Your task to perform on an android device: turn off javascript in the chrome app Image 0: 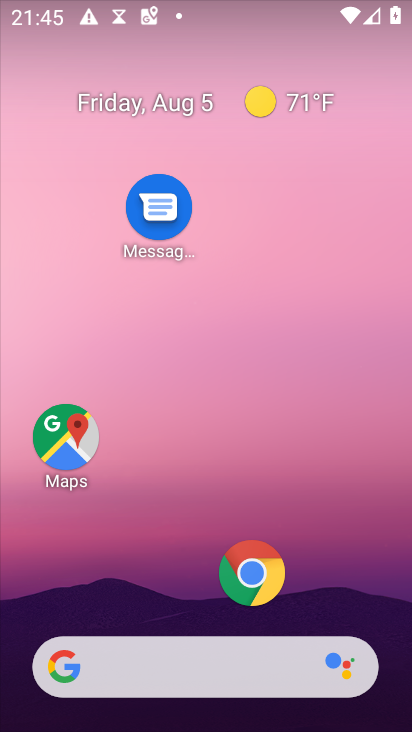
Step 0: click (244, 571)
Your task to perform on an android device: turn off javascript in the chrome app Image 1: 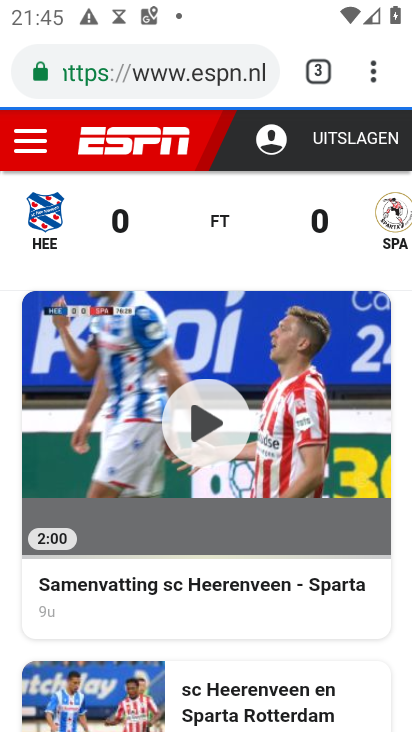
Step 1: click (376, 80)
Your task to perform on an android device: turn off javascript in the chrome app Image 2: 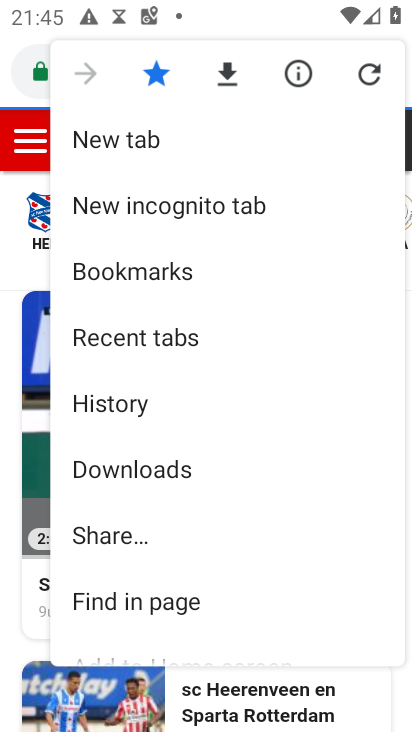
Step 2: drag from (161, 541) to (166, 275)
Your task to perform on an android device: turn off javascript in the chrome app Image 3: 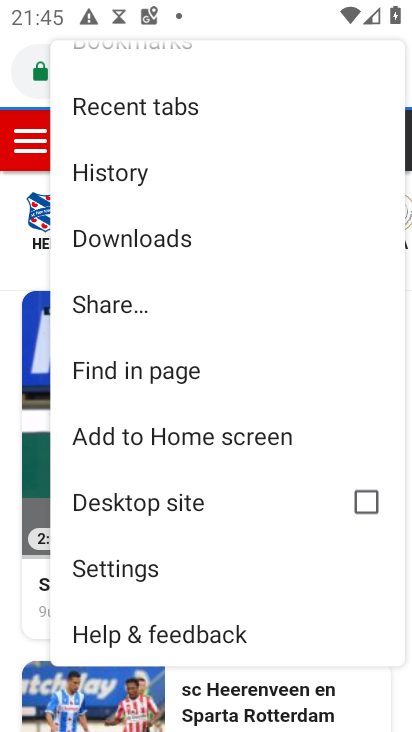
Step 3: click (164, 568)
Your task to perform on an android device: turn off javascript in the chrome app Image 4: 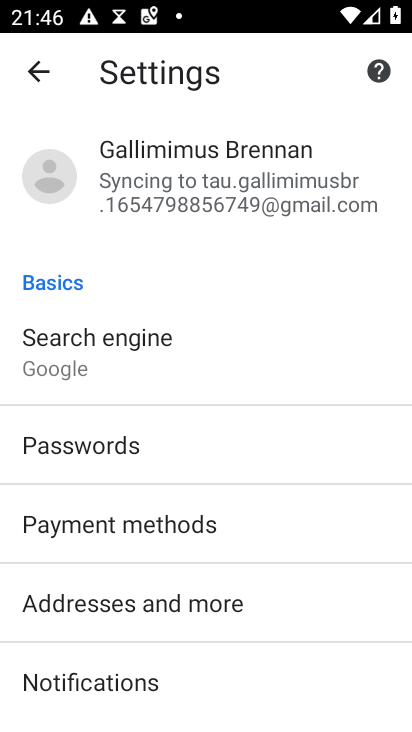
Step 4: drag from (171, 691) to (134, 313)
Your task to perform on an android device: turn off javascript in the chrome app Image 5: 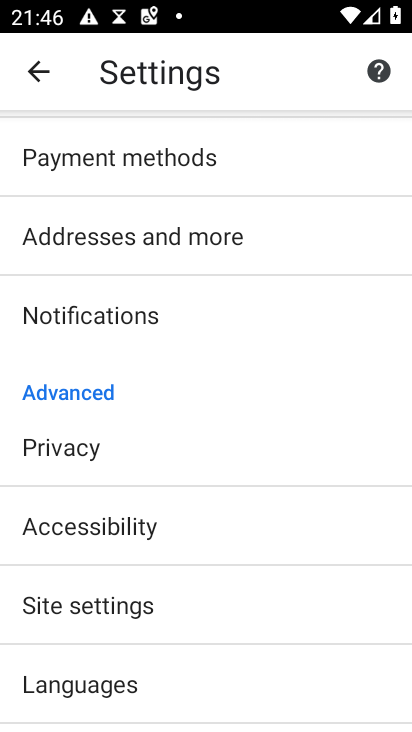
Step 5: click (142, 610)
Your task to perform on an android device: turn off javascript in the chrome app Image 6: 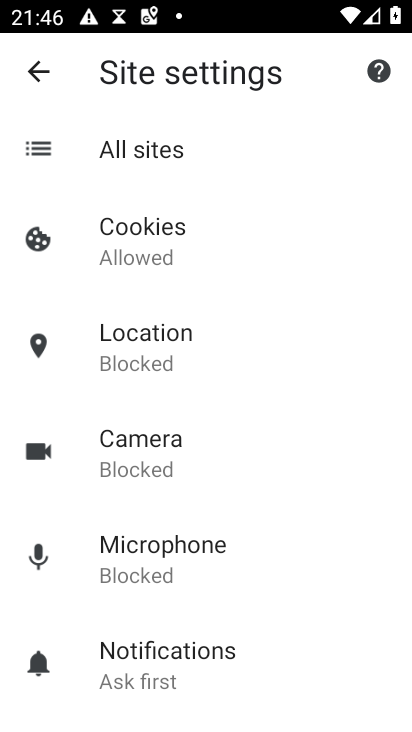
Step 6: drag from (184, 657) to (66, 170)
Your task to perform on an android device: turn off javascript in the chrome app Image 7: 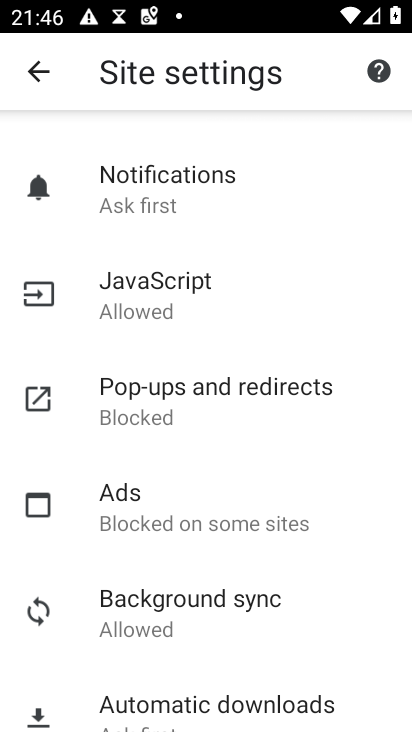
Step 7: click (192, 282)
Your task to perform on an android device: turn off javascript in the chrome app Image 8: 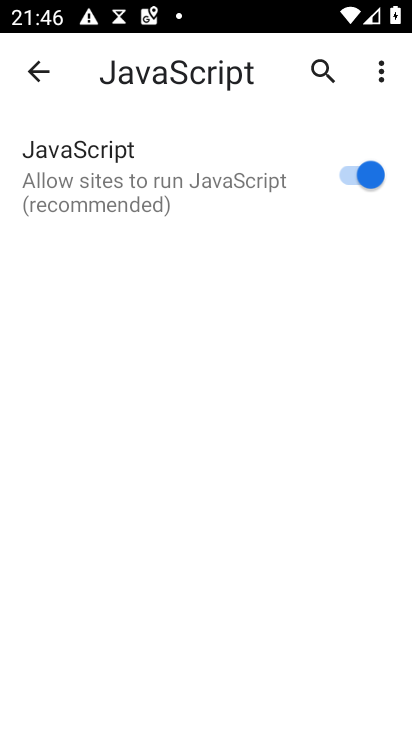
Step 8: click (364, 171)
Your task to perform on an android device: turn off javascript in the chrome app Image 9: 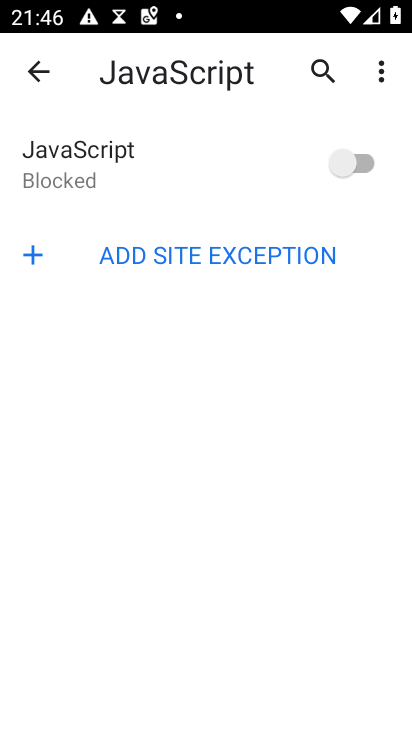
Step 9: task complete